Your task to perform on an android device: Toggle the flashlight Image 0: 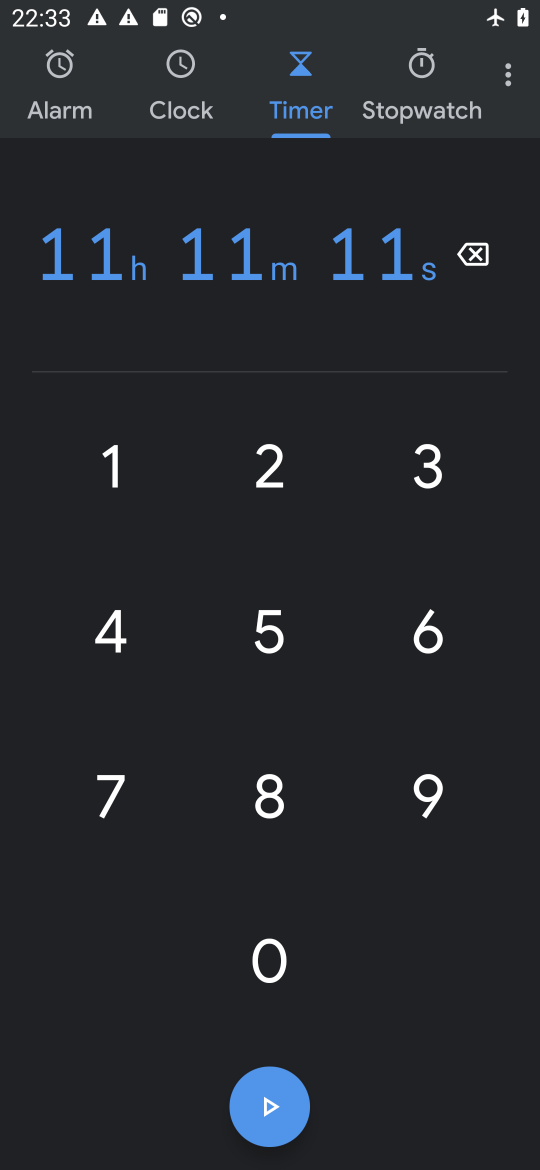
Step 0: press home button
Your task to perform on an android device: Toggle the flashlight Image 1: 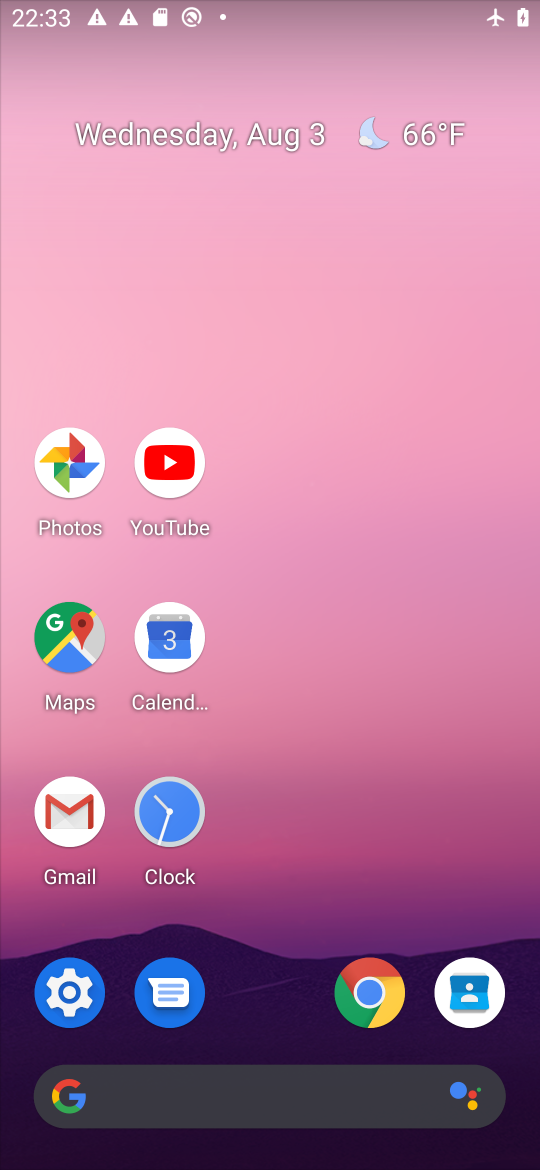
Step 1: click (61, 989)
Your task to perform on an android device: Toggle the flashlight Image 2: 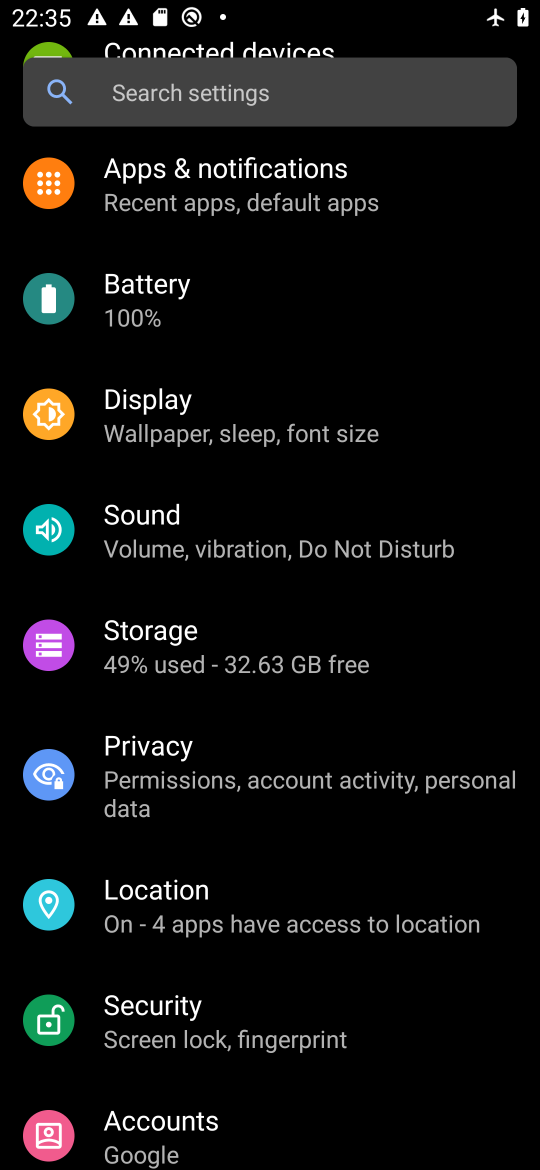
Step 2: click (146, 506)
Your task to perform on an android device: Toggle the flashlight Image 3: 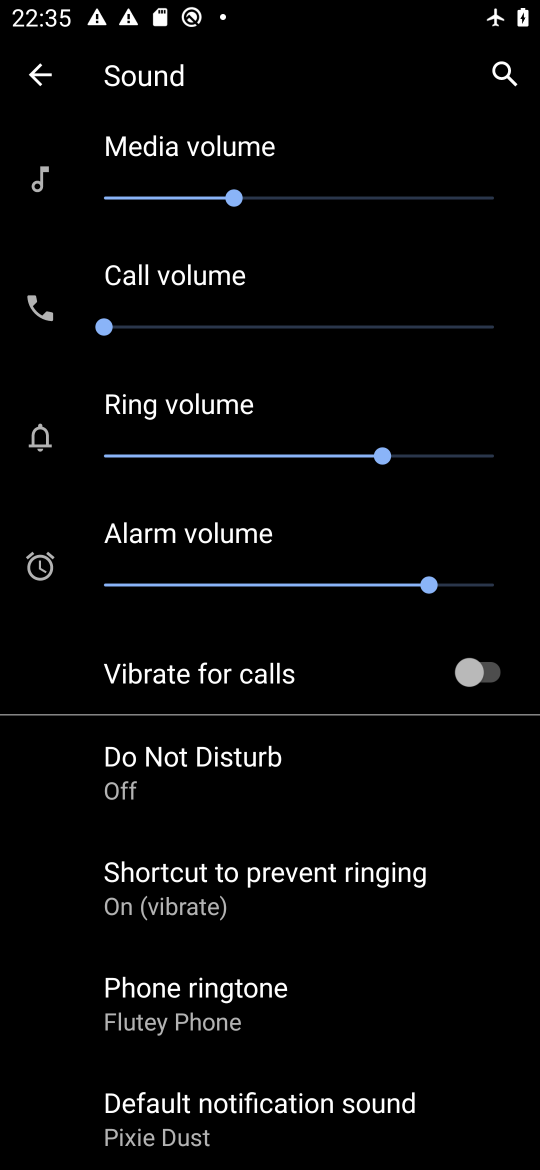
Step 3: task complete